Your task to perform on an android device: check storage Image 0: 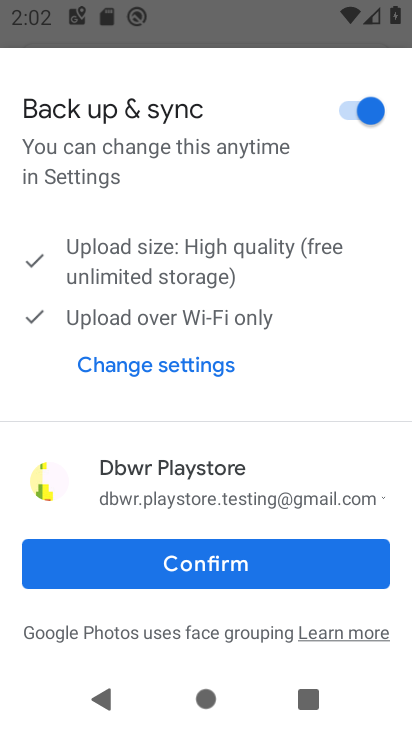
Step 0: press home button
Your task to perform on an android device: check storage Image 1: 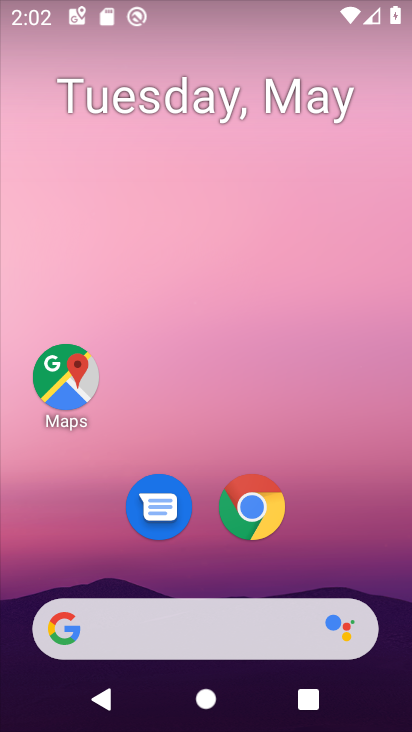
Step 1: drag from (214, 569) to (215, 181)
Your task to perform on an android device: check storage Image 2: 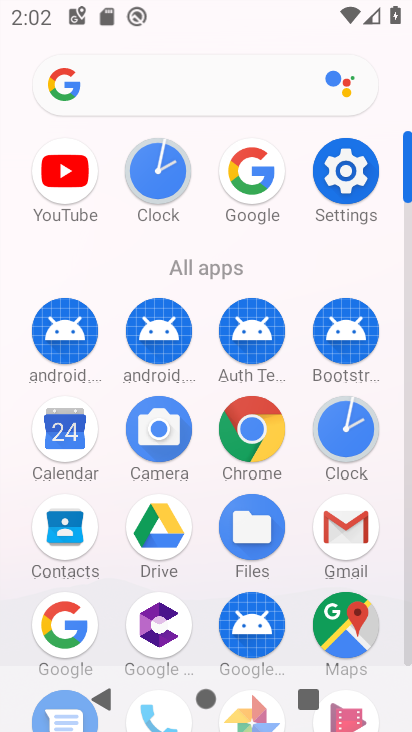
Step 2: click (335, 173)
Your task to perform on an android device: check storage Image 3: 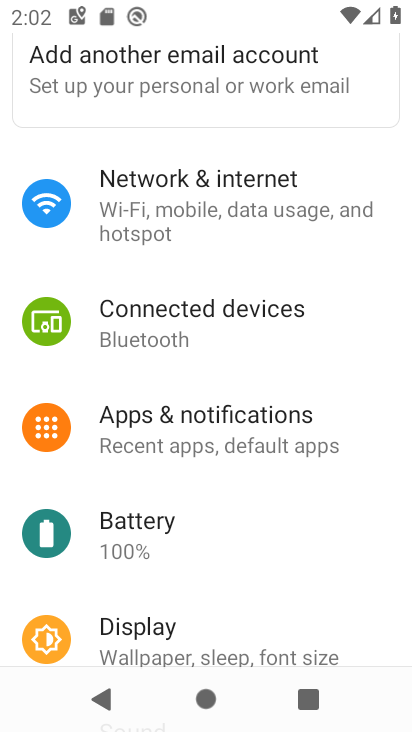
Step 3: drag from (207, 549) to (185, 288)
Your task to perform on an android device: check storage Image 4: 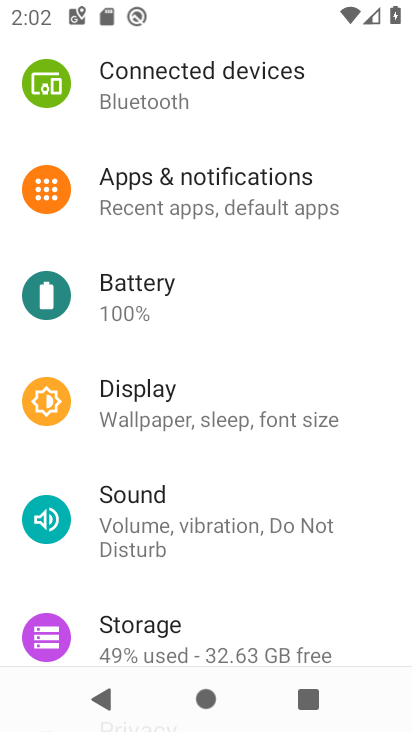
Step 4: click (161, 626)
Your task to perform on an android device: check storage Image 5: 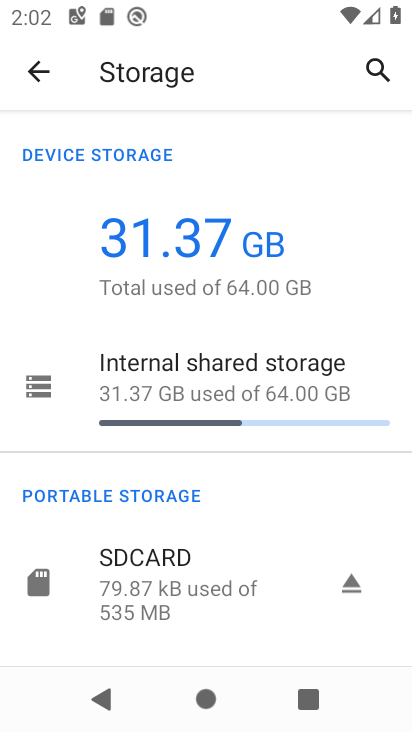
Step 5: task complete